Your task to perform on an android device: Open network settings Image 0: 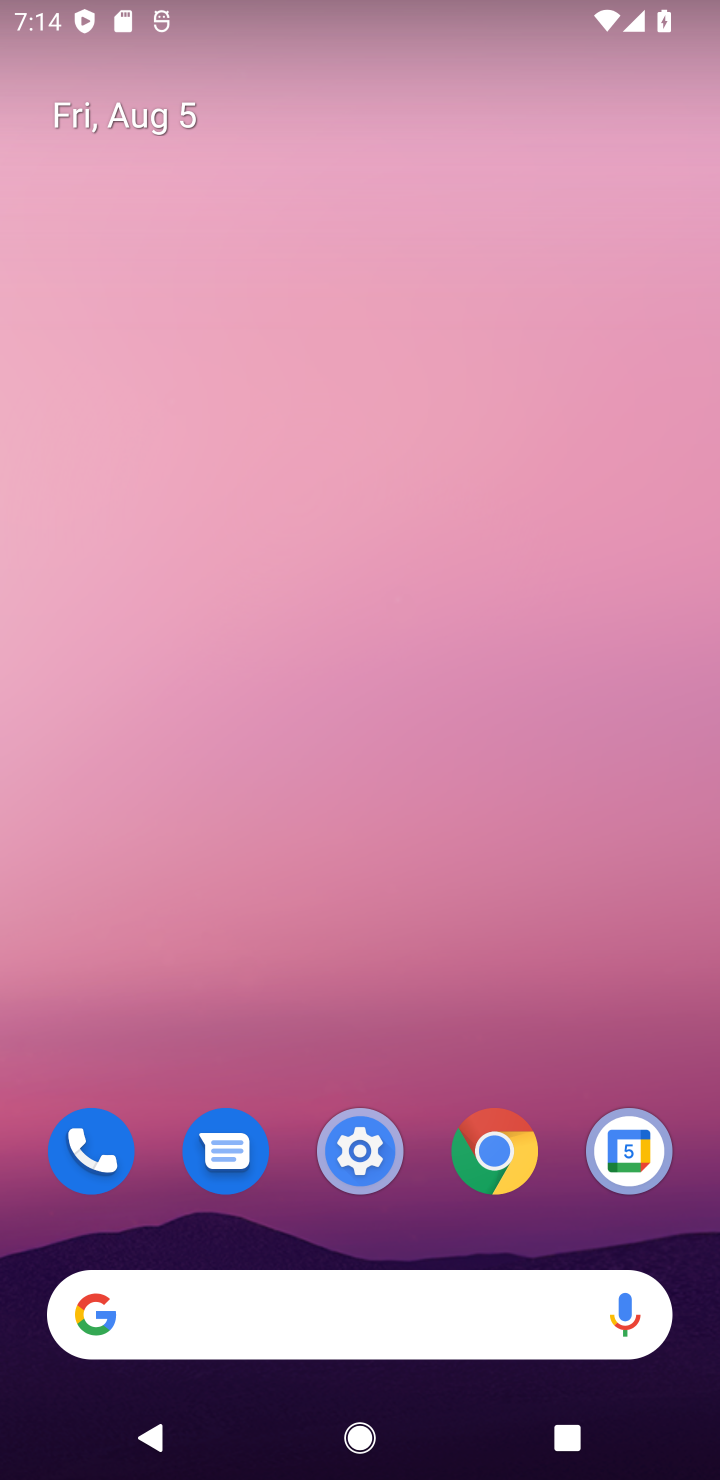
Step 0: drag from (336, 1067) to (220, 22)
Your task to perform on an android device: Open network settings Image 1: 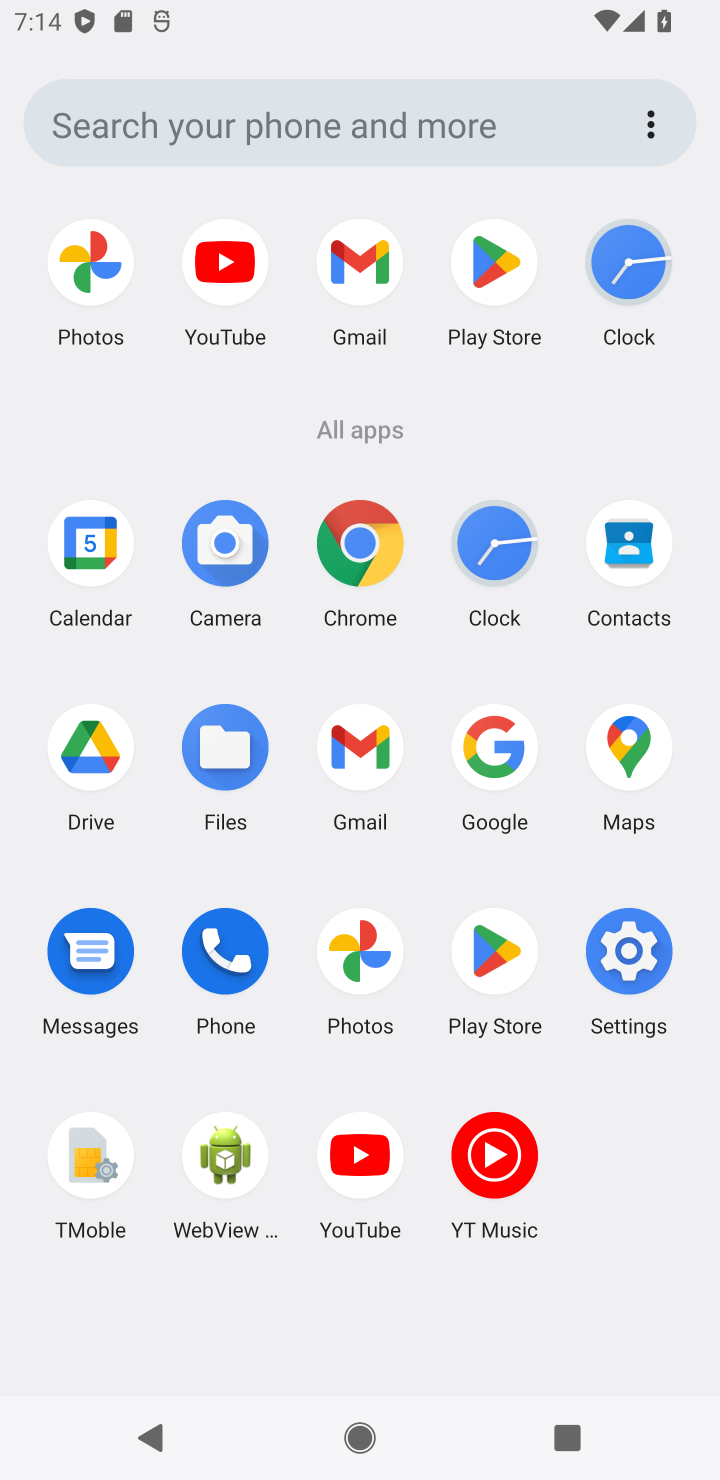
Step 1: click (654, 957)
Your task to perform on an android device: Open network settings Image 2: 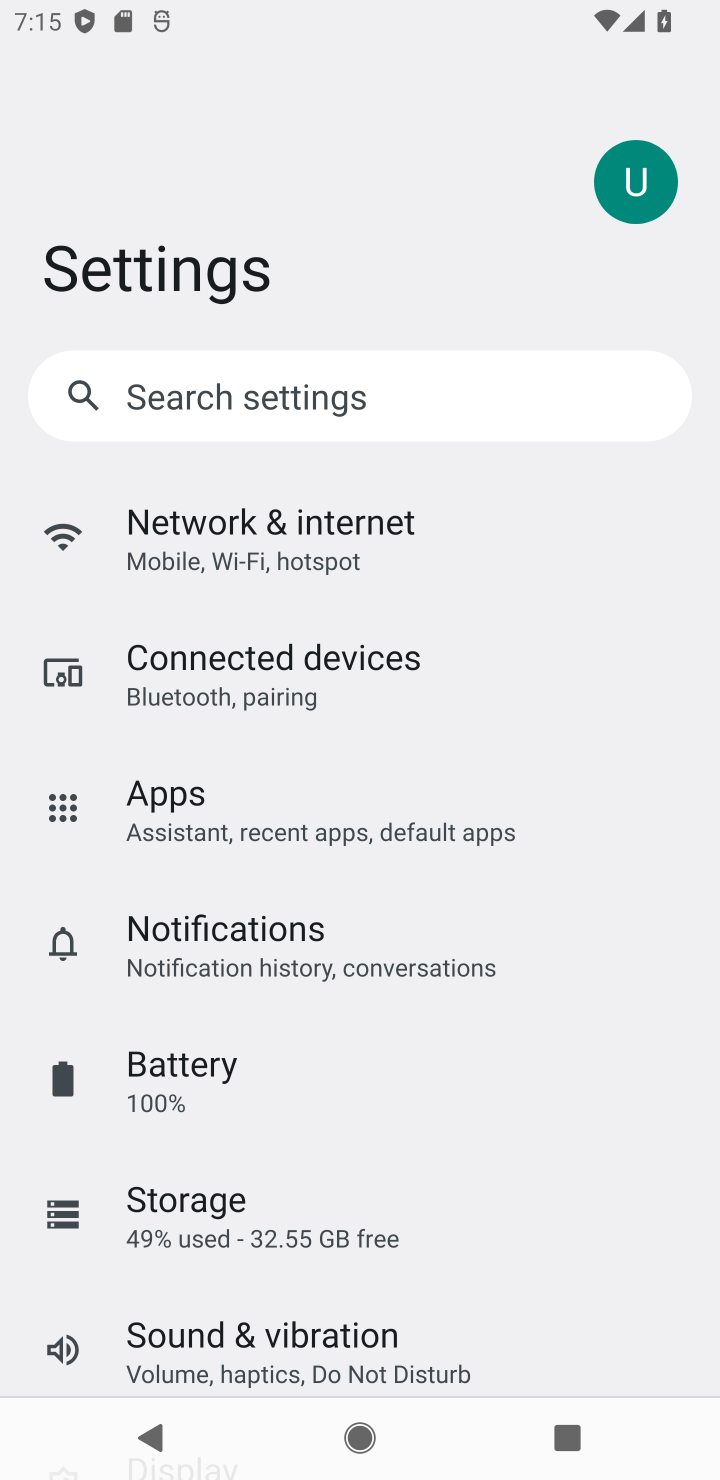
Step 2: click (202, 504)
Your task to perform on an android device: Open network settings Image 3: 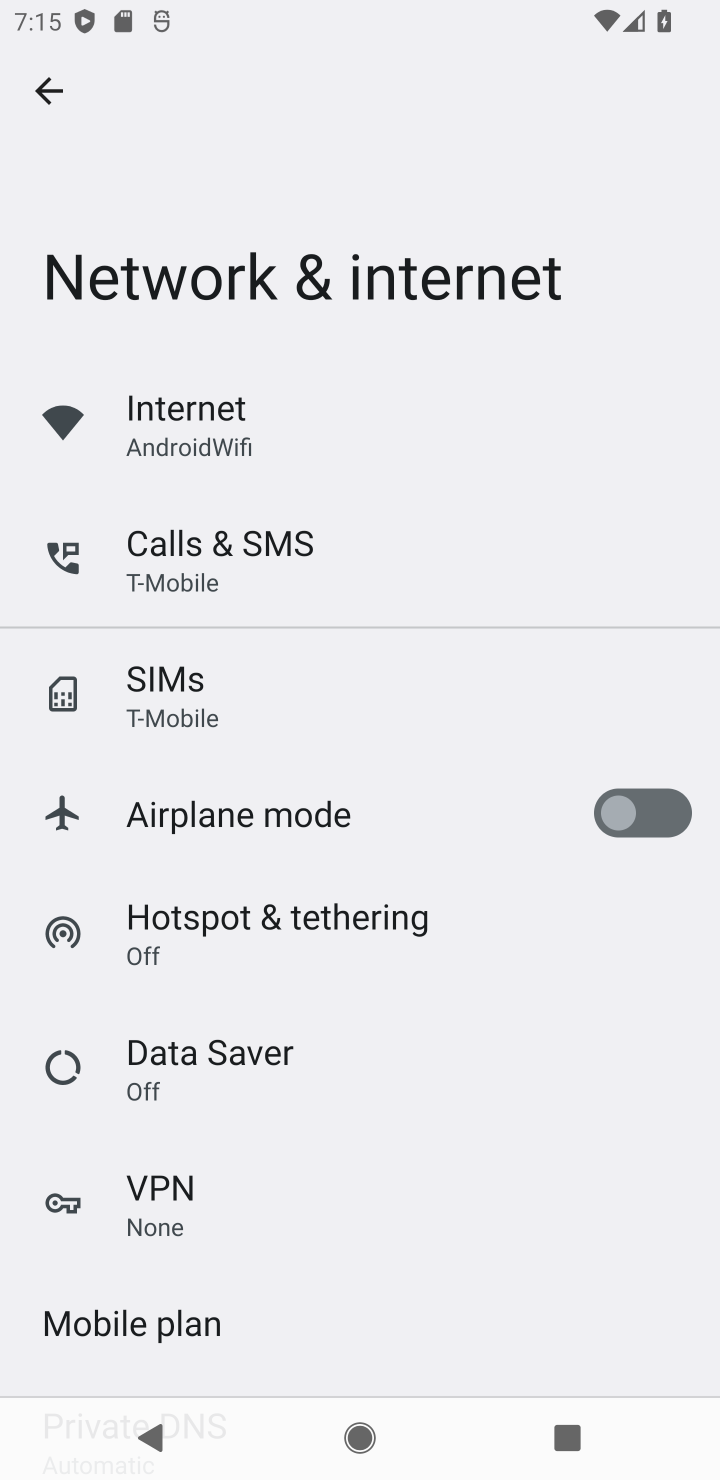
Step 3: click (289, 444)
Your task to perform on an android device: Open network settings Image 4: 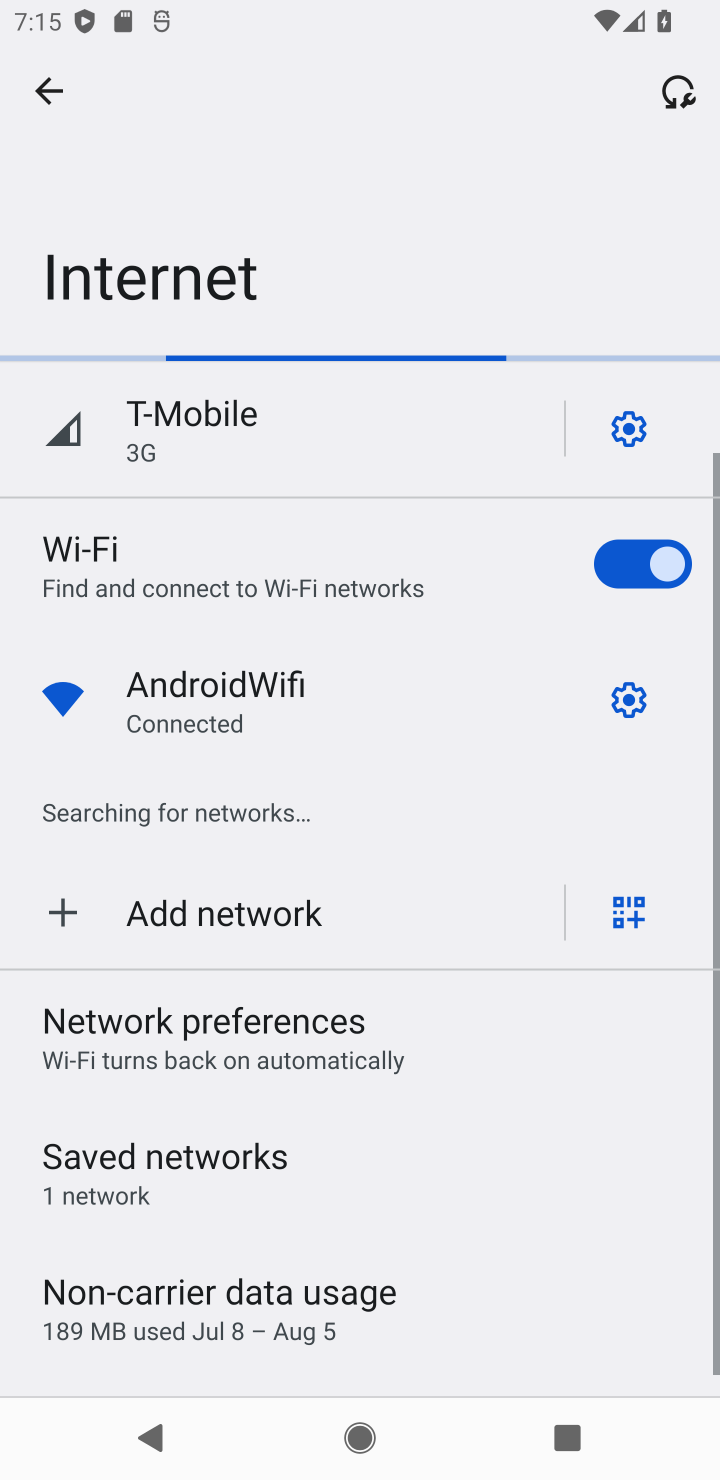
Step 4: task complete